Your task to perform on an android device: Go to Maps Image 0: 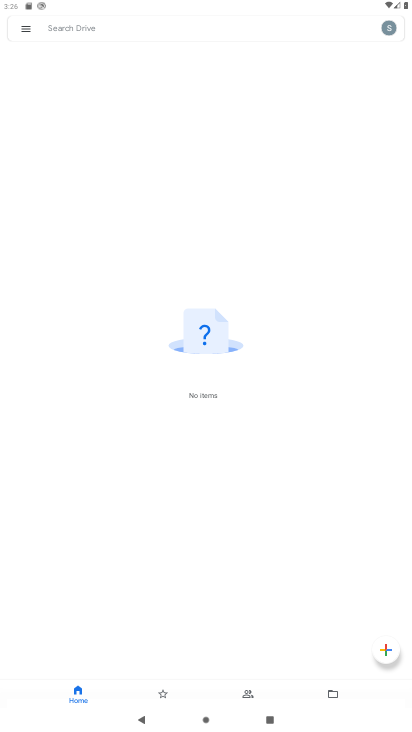
Step 0: press home button
Your task to perform on an android device: Go to Maps Image 1: 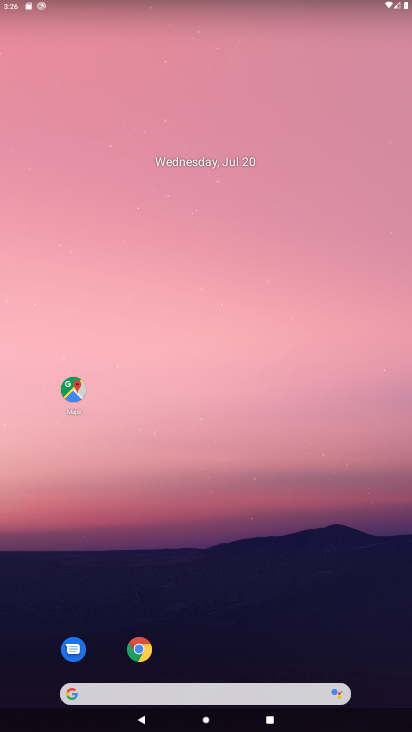
Step 1: click (70, 386)
Your task to perform on an android device: Go to Maps Image 2: 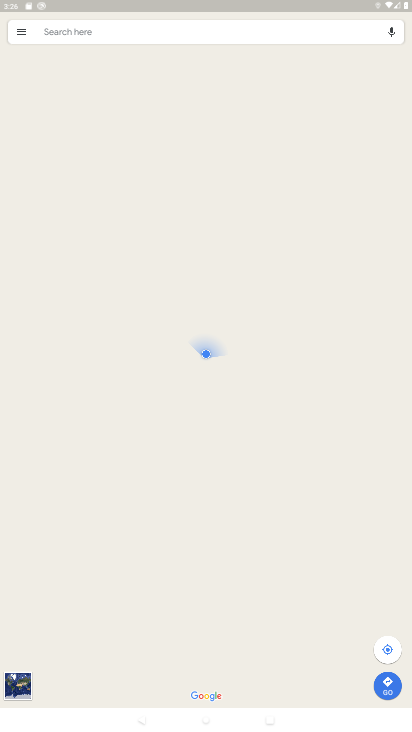
Step 2: task complete